Your task to perform on an android device: empty trash in google photos Image 0: 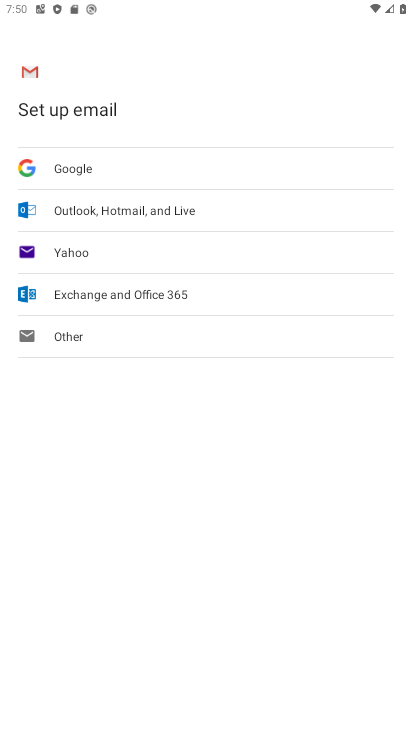
Step 0: press home button
Your task to perform on an android device: empty trash in google photos Image 1: 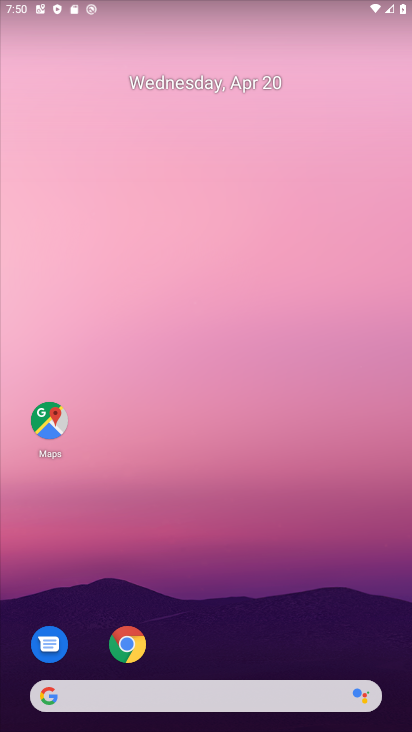
Step 1: drag from (353, 636) to (217, 50)
Your task to perform on an android device: empty trash in google photos Image 2: 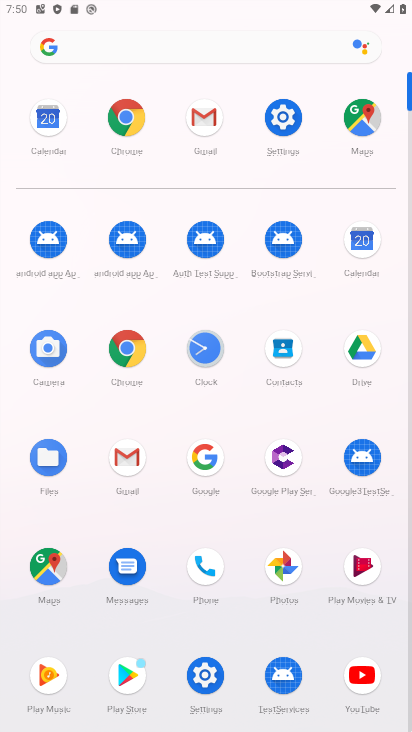
Step 2: click (285, 568)
Your task to perform on an android device: empty trash in google photos Image 3: 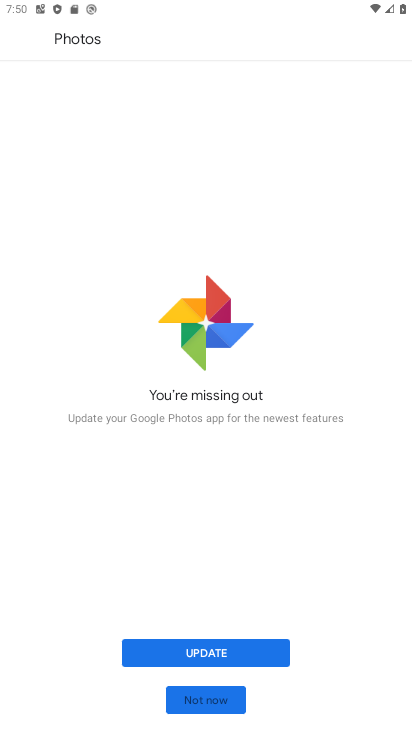
Step 3: click (202, 646)
Your task to perform on an android device: empty trash in google photos Image 4: 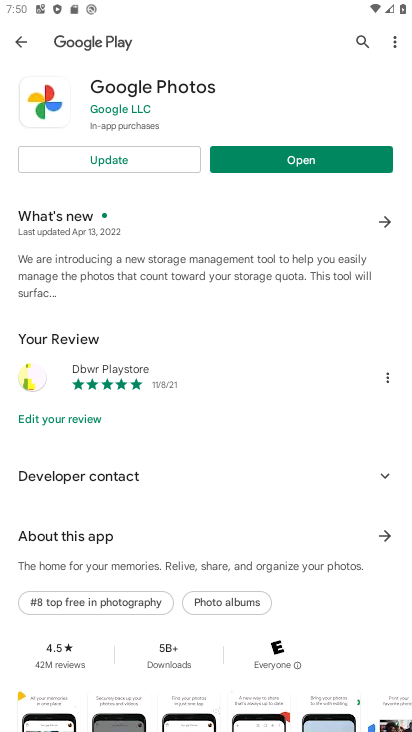
Step 4: click (140, 163)
Your task to perform on an android device: empty trash in google photos Image 5: 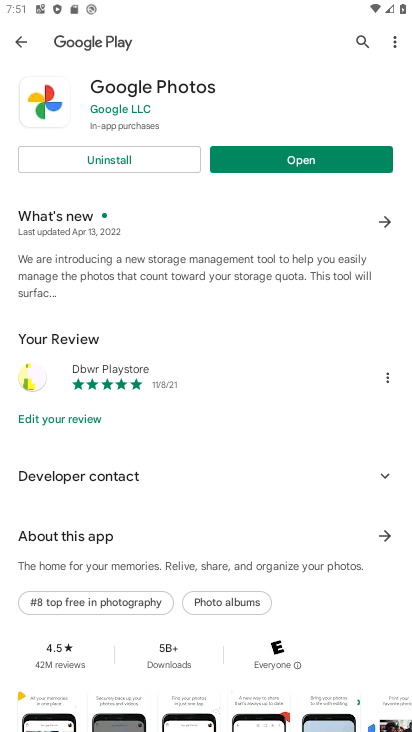
Step 5: click (323, 169)
Your task to perform on an android device: empty trash in google photos Image 6: 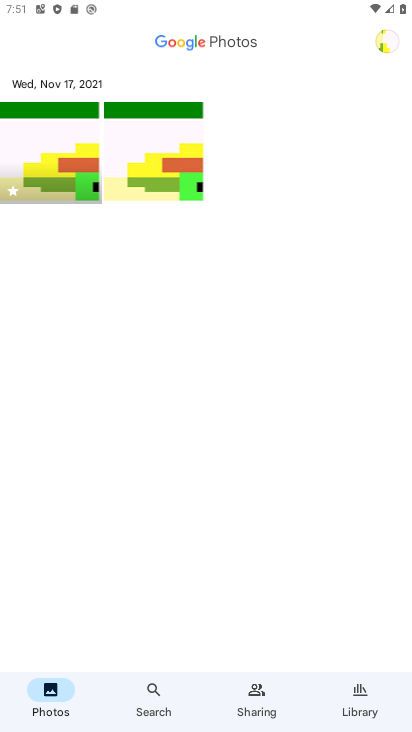
Step 6: click (356, 696)
Your task to perform on an android device: empty trash in google photos Image 7: 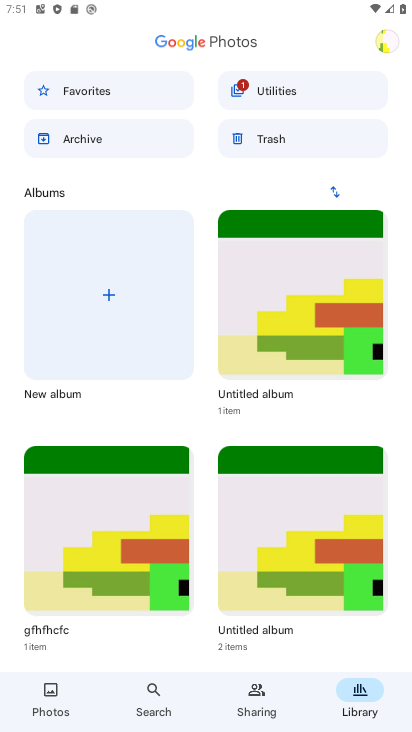
Step 7: click (305, 130)
Your task to perform on an android device: empty trash in google photos Image 8: 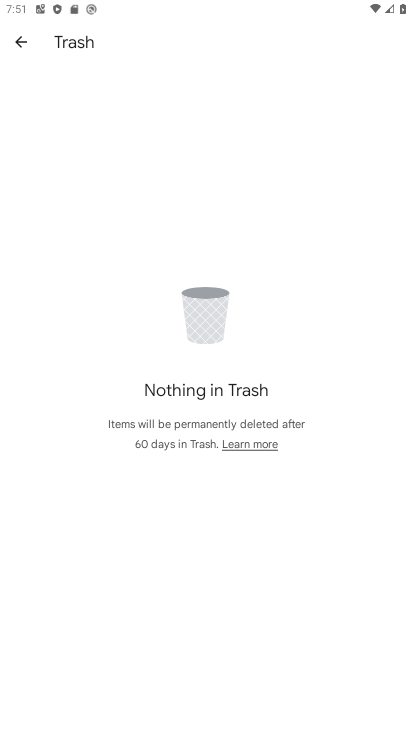
Step 8: task complete